Your task to perform on an android device: turn off smart reply in the gmail app Image 0: 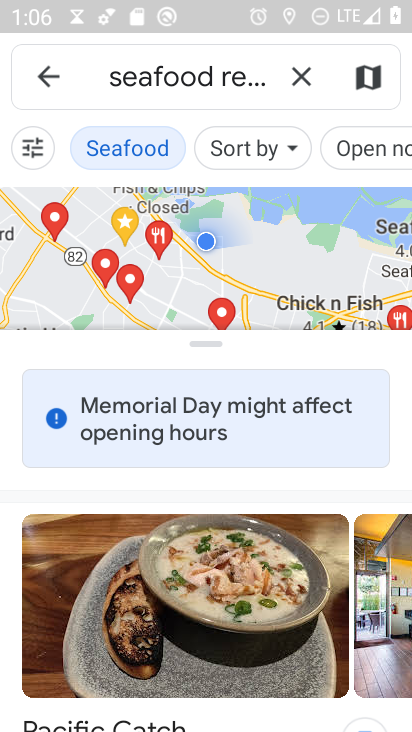
Step 0: press home button
Your task to perform on an android device: turn off smart reply in the gmail app Image 1: 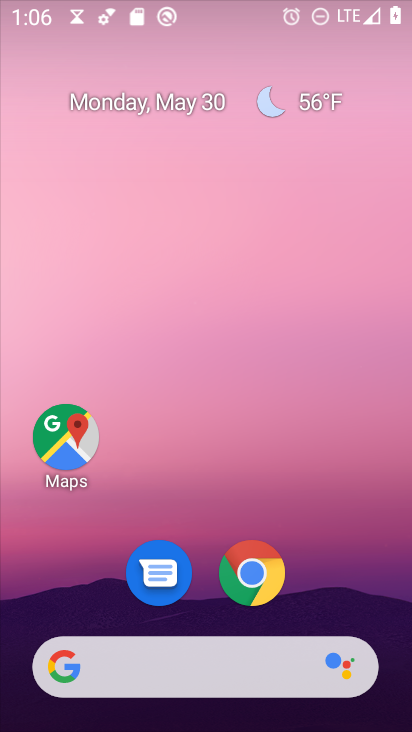
Step 1: drag from (293, 691) to (335, 4)
Your task to perform on an android device: turn off smart reply in the gmail app Image 2: 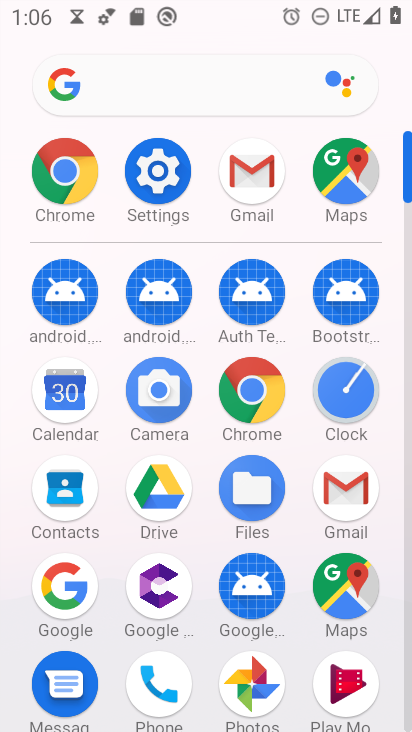
Step 2: click (359, 477)
Your task to perform on an android device: turn off smart reply in the gmail app Image 3: 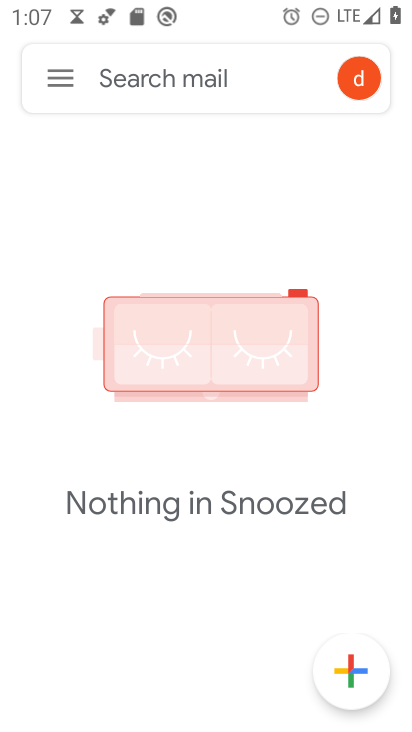
Step 3: click (66, 79)
Your task to perform on an android device: turn off smart reply in the gmail app Image 4: 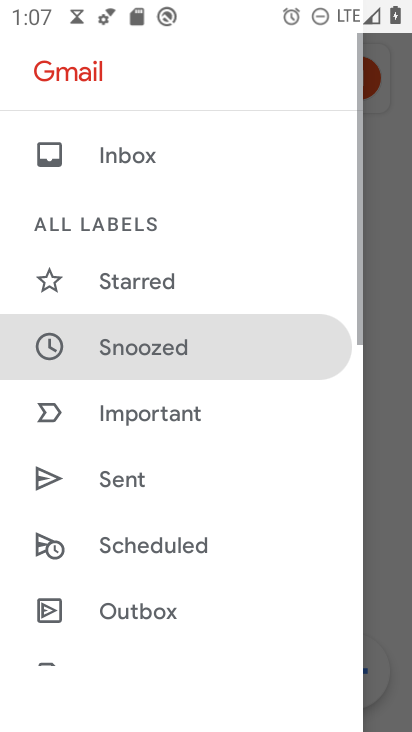
Step 4: drag from (153, 546) to (186, 38)
Your task to perform on an android device: turn off smart reply in the gmail app Image 5: 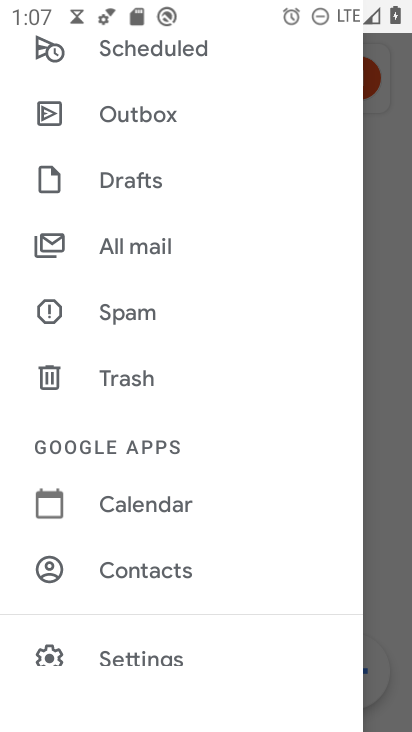
Step 5: click (191, 659)
Your task to perform on an android device: turn off smart reply in the gmail app Image 6: 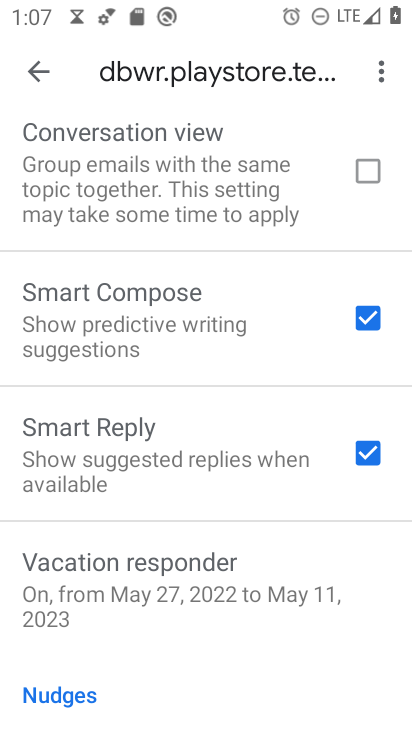
Step 6: click (363, 447)
Your task to perform on an android device: turn off smart reply in the gmail app Image 7: 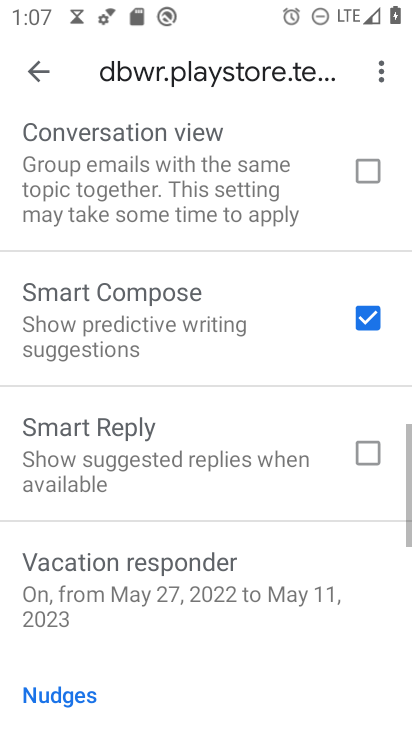
Step 7: task complete